Your task to perform on an android device: Go to Google maps Image 0: 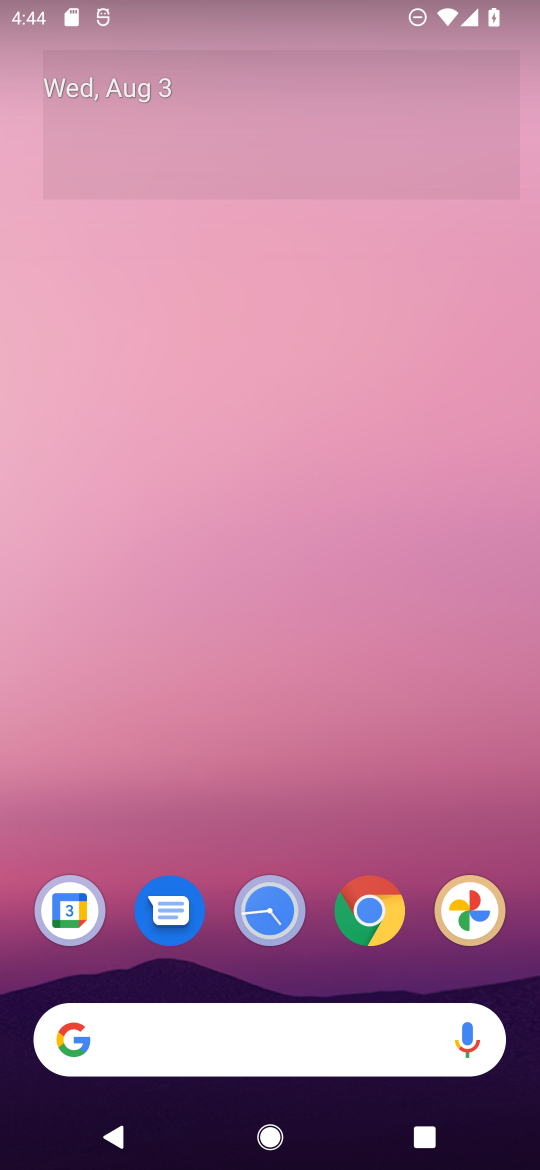
Step 0: drag from (184, 333) to (190, 222)
Your task to perform on an android device: Go to Google maps Image 1: 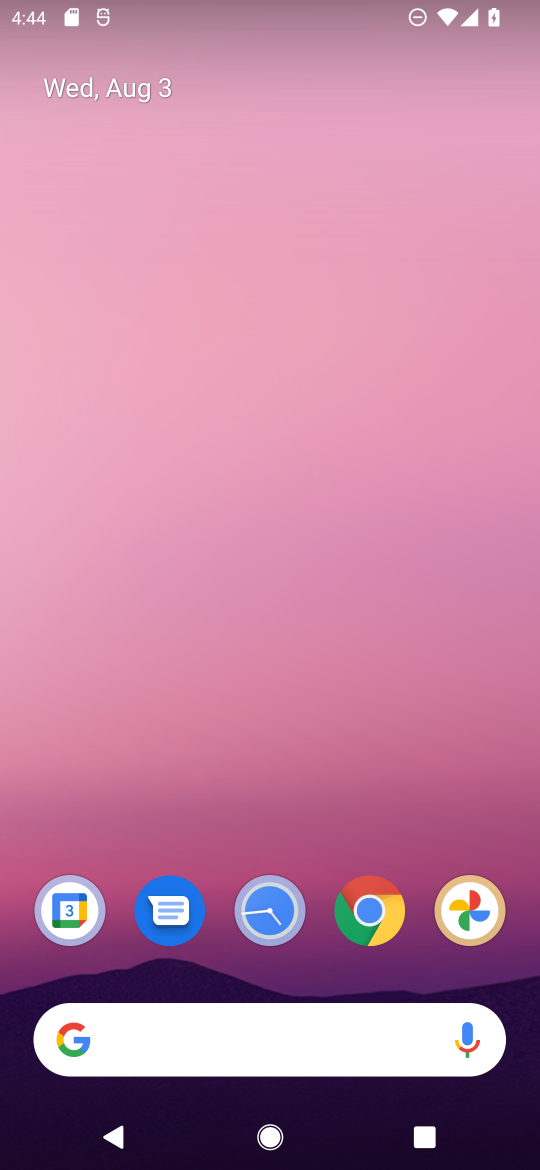
Step 1: drag from (131, 922) to (408, 119)
Your task to perform on an android device: Go to Google maps Image 2: 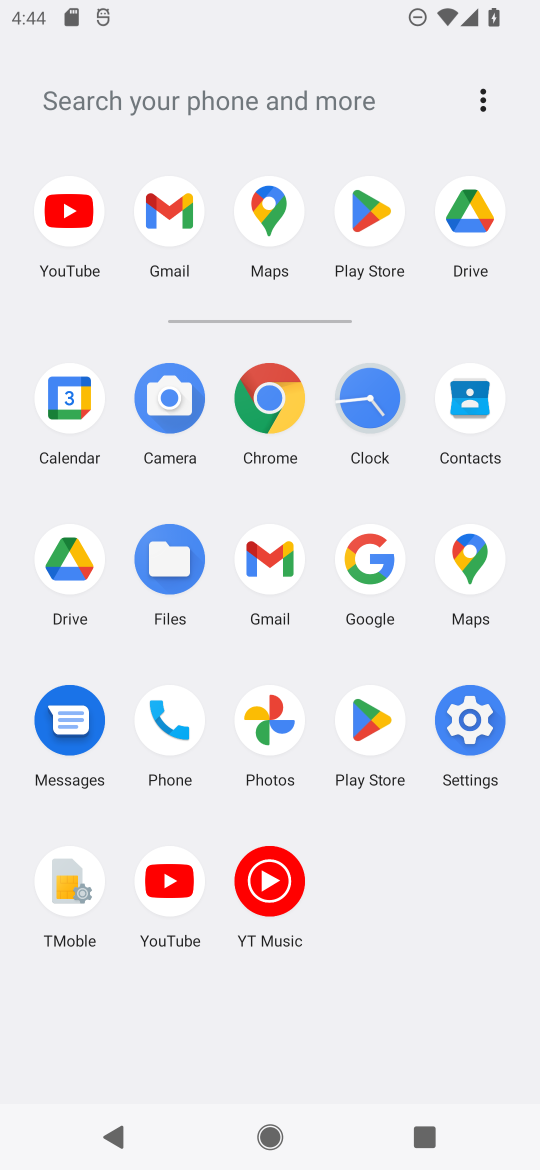
Step 2: click (440, 529)
Your task to perform on an android device: Go to Google maps Image 3: 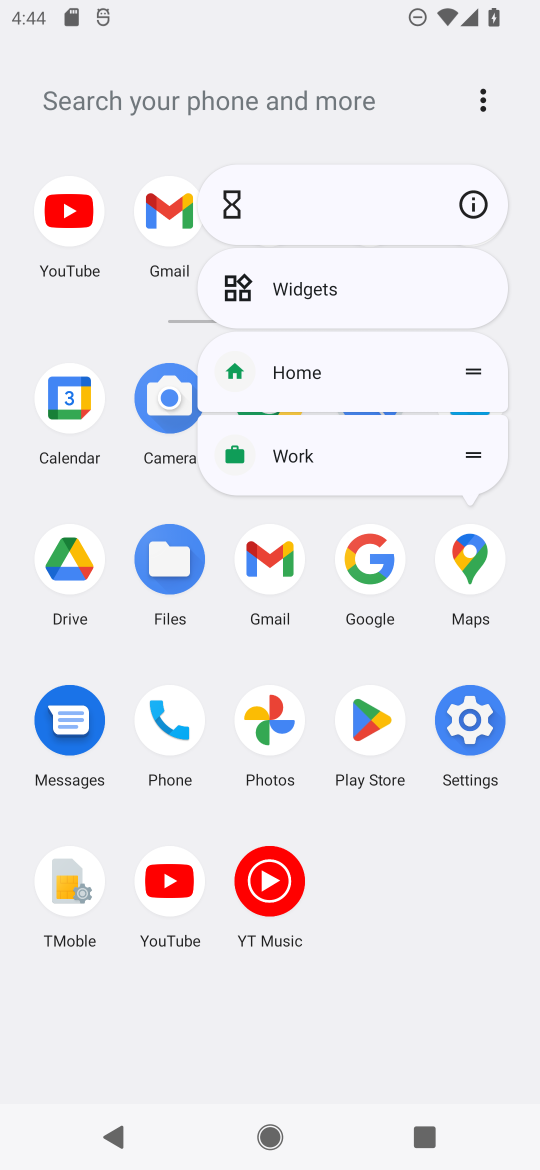
Step 3: click (457, 560)
Your task to perform on an android device: Go to Google maps Image 4: 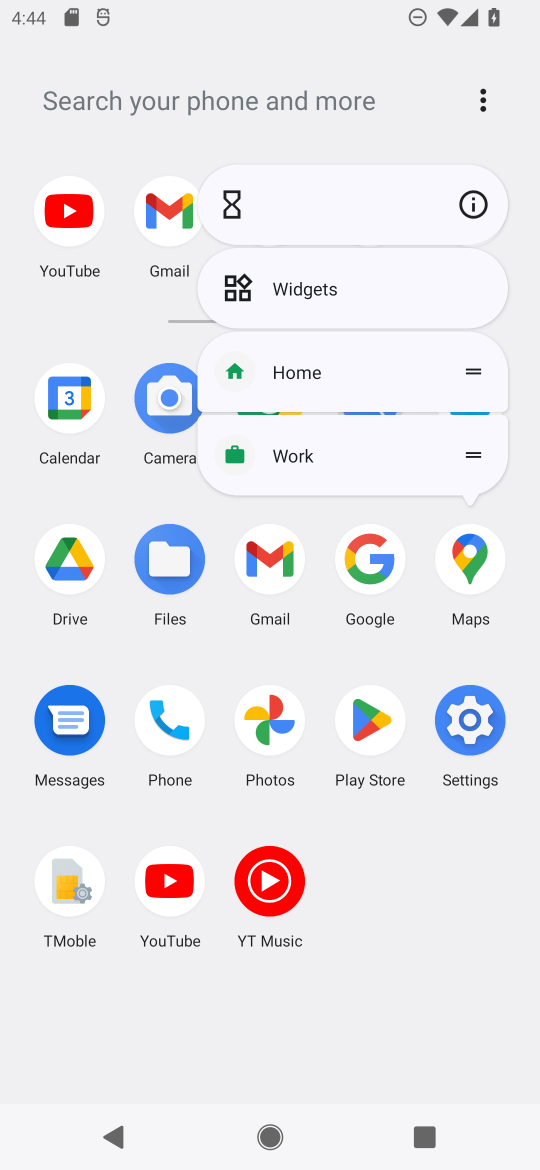
Step 4: click (459, 571)
Your task to perform on an android device: Go to Google maps Image 5: 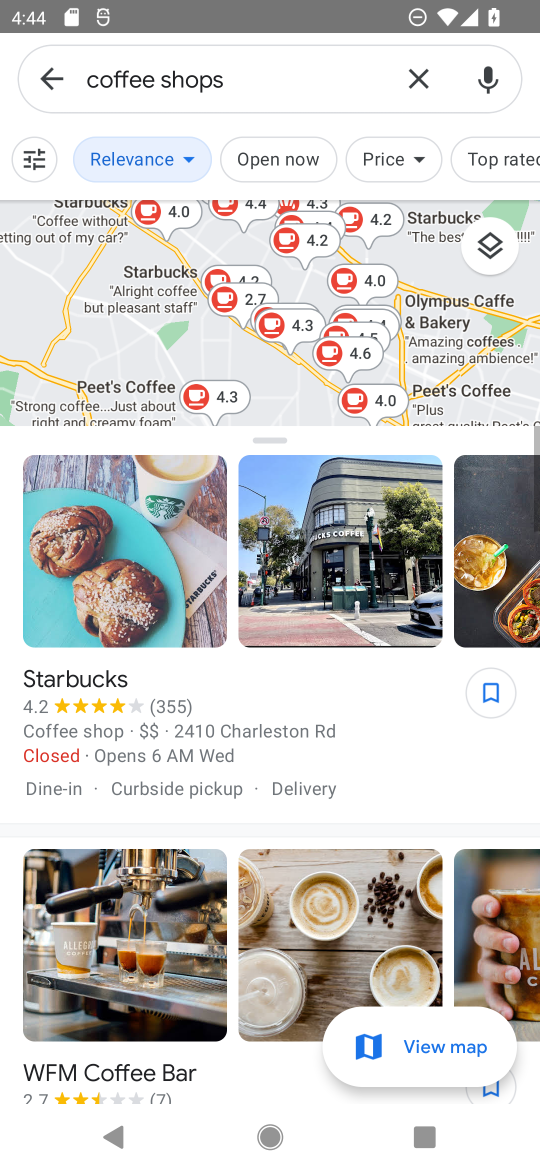
Step 5: click (49, 87)
Your task to perform on an android device: Go to Google maps Image 6: 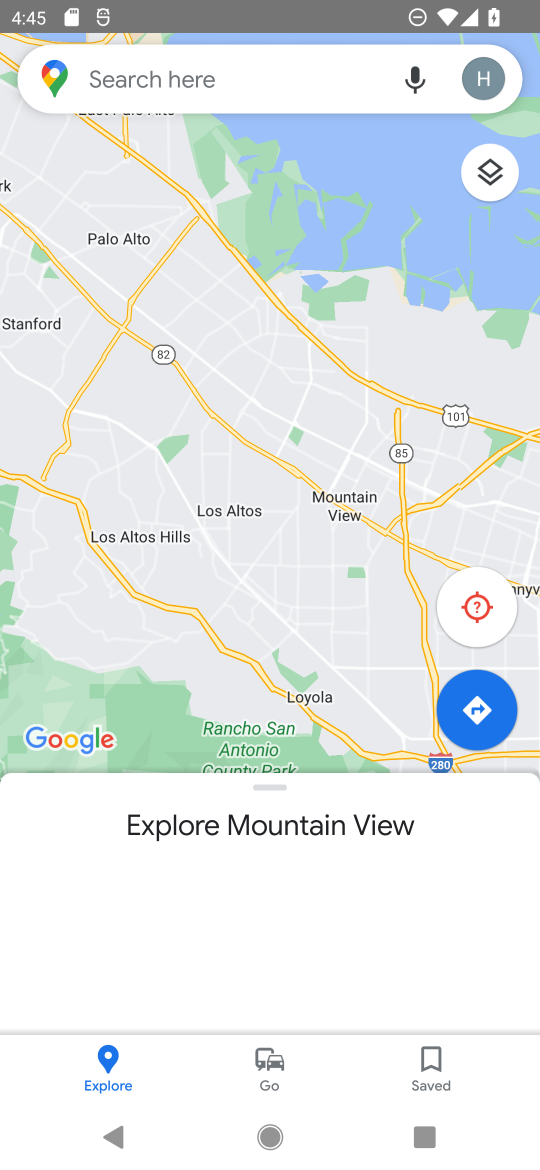
Step 6: task complete